Your task to perform on an android device: turn on sleep mode Image 0: 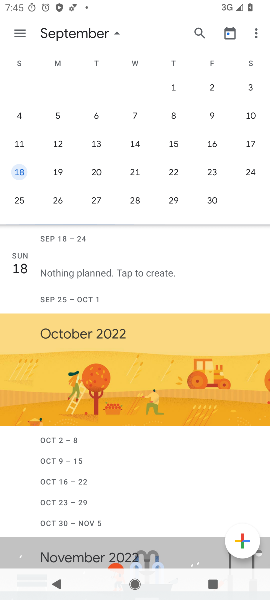
Step 0: press home button
Your task to perform on an android device: turn on sleep mode Image 1: 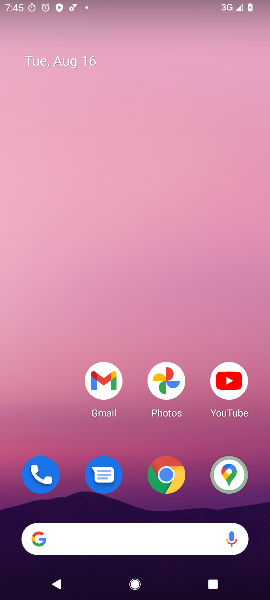
Step 1: drag from (201, 496) to (90, 45)
Your task to perform on an android device: turn on sleep mode Image 2: 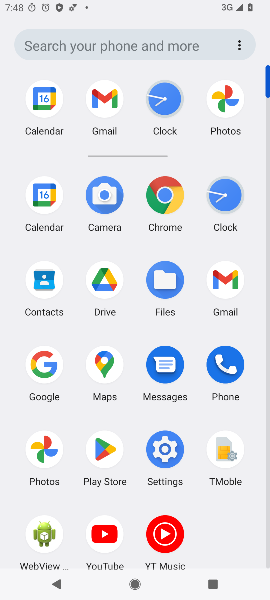
Step 2: click (162, 441)
Your task to perform on an android device: turn on sleep mode Image 3: 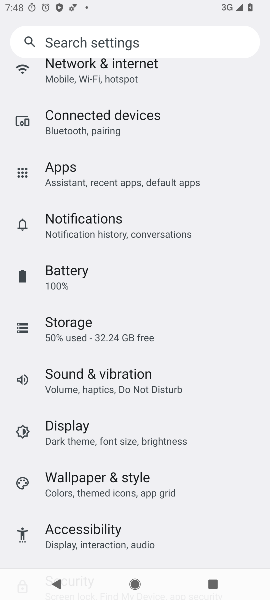
Step 3: task complete